Your task to perform on an android device: Open Wikipedia Image 0: 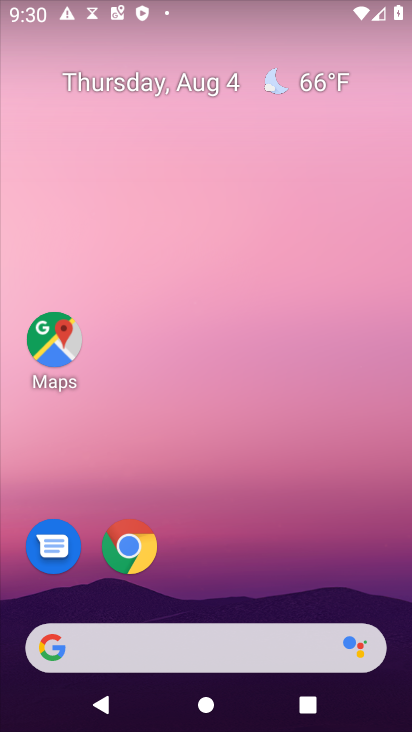
Step 0: press home button
Your task to perform on an android device: Open Wikipedia Image 1: 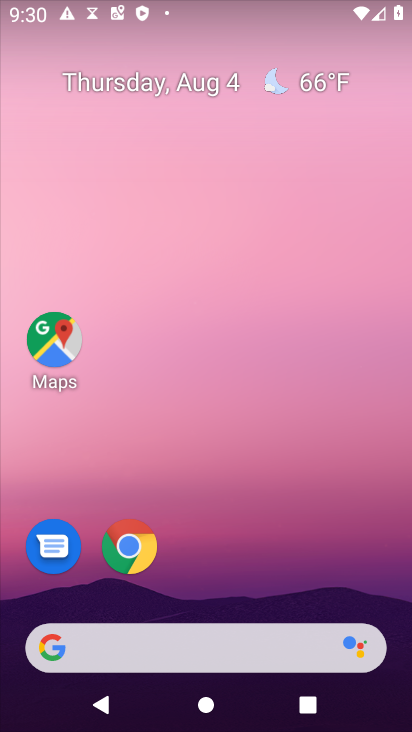
Step 1: click (37, 643)
Your task to perform on an android device: Open Wikipedia Image 2: 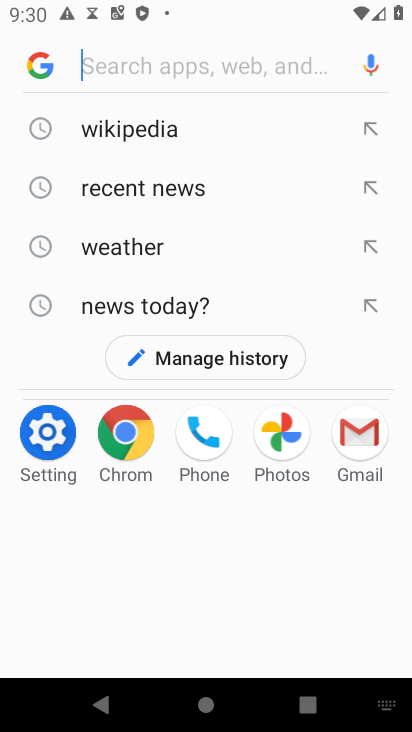
Step 2: click (99, 128)
Your task to perform on an android device: Open Wikipedia Image 3: 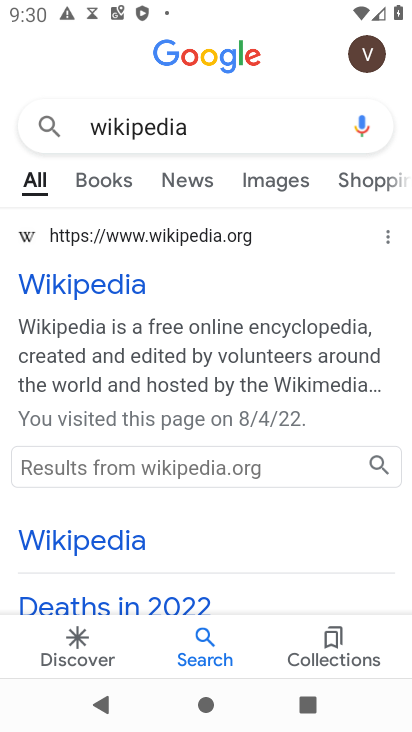
Step 3: click (90, 293)
Your task to perform on an android device: Open Wikipedia Image 4: 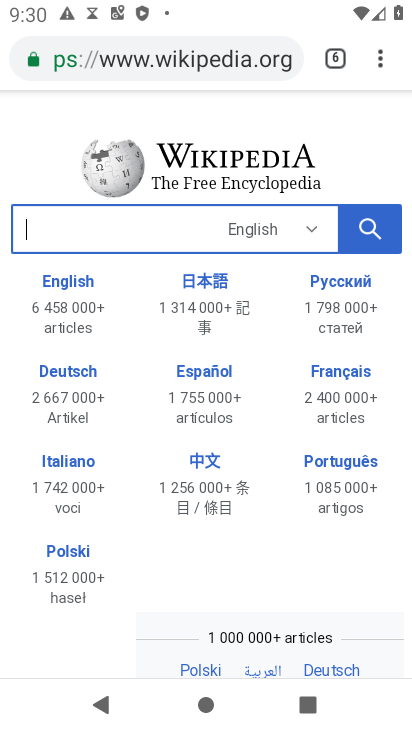
Step 4: task complete